Your task to perform on an android device: Open Chrome and go to settings Image 0: 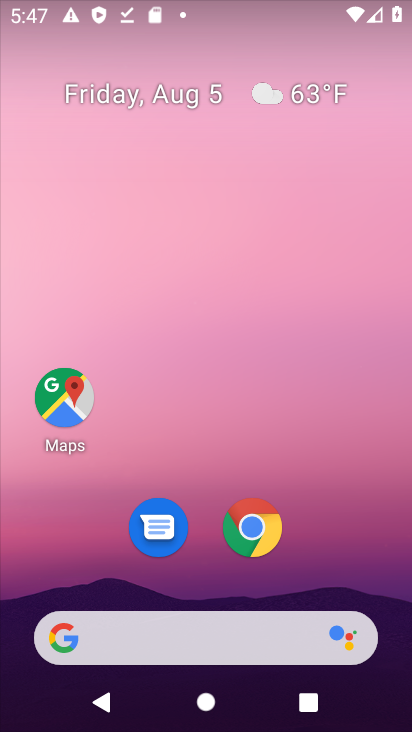
Step 0: drag from (193, 507) to (240, 182)
Your task to perform on an android device: Open Chrome and go to settings Image 1: 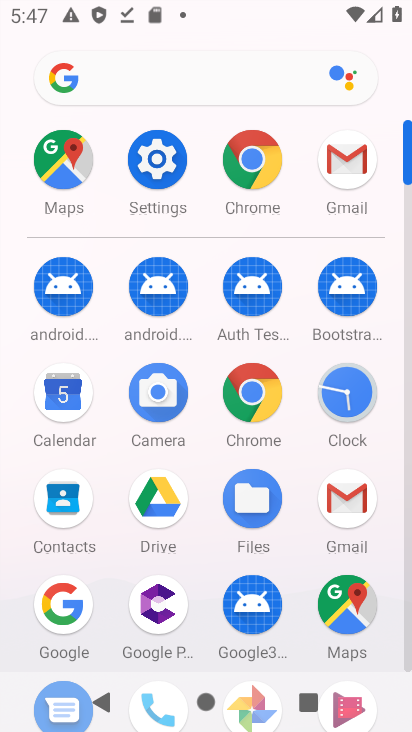
Step 1: click (252, 386)
Your task to perform on an android device: Open Chrome and go to settings Image 2: 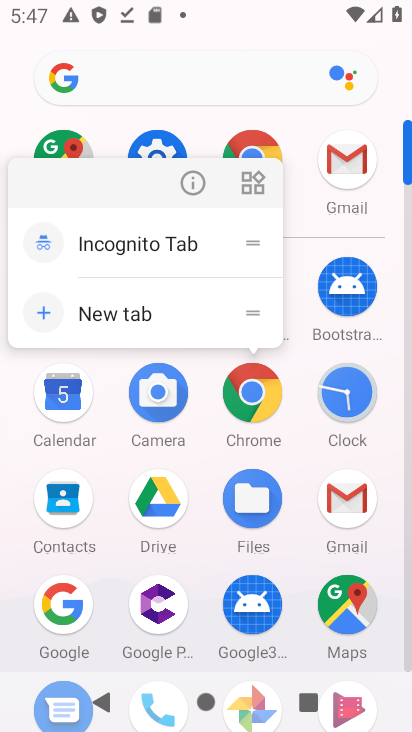
Step 2: click (190, 176)
Your task to perform on an android device: Open Chrome and go to settings Image 3: 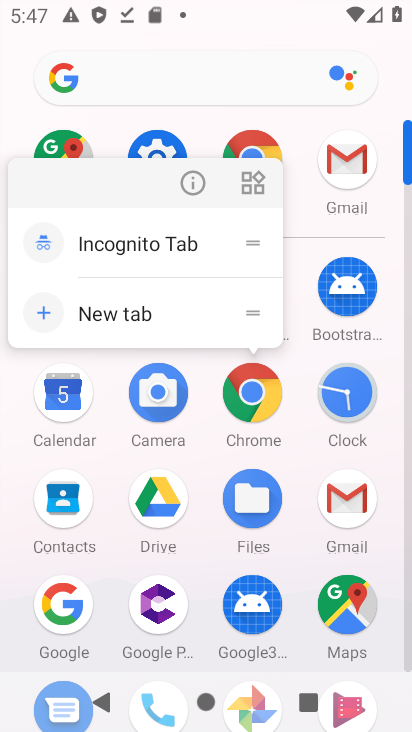
Step 3: click (185, 186)
Your task to perform on an android device: Open Chrome and go to settings Image 4: 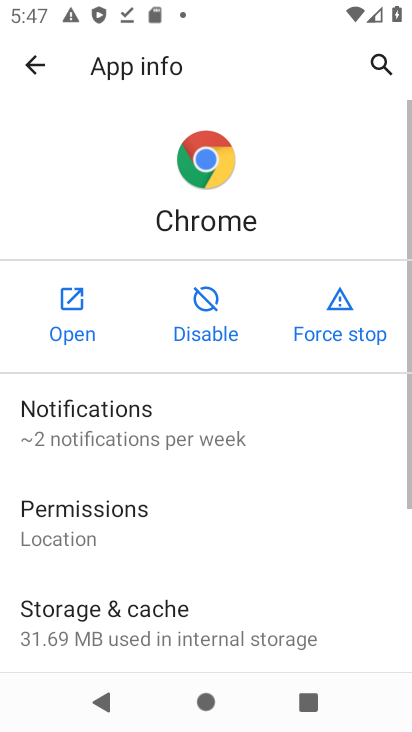
Step 4: click (83, 308)
Your task to perform on an android device: Open Chrome and go to settings Image 5: 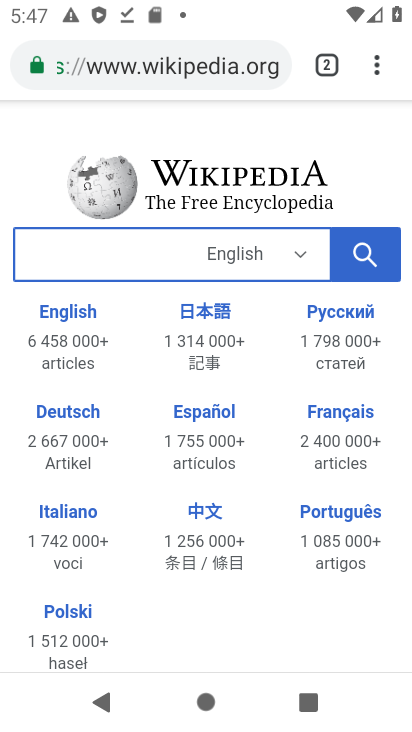
Step 5: task complete